Your task to perform on an android device: Open wifi settings Image 0: 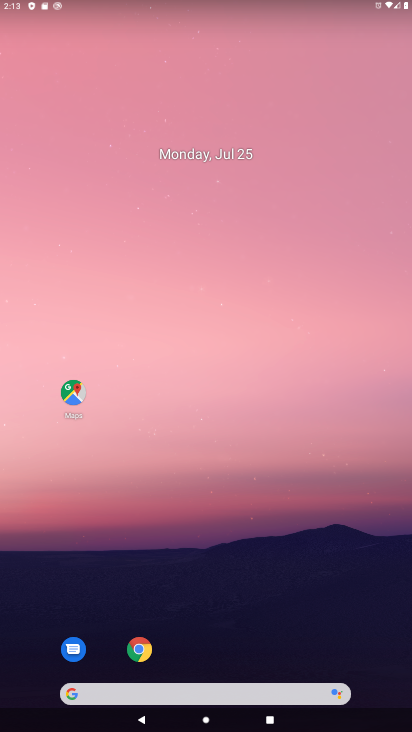
Step 0: drag from (373, 656) to (298, 141)
Your task to perform on an android device: Open wifi settings Image 1: 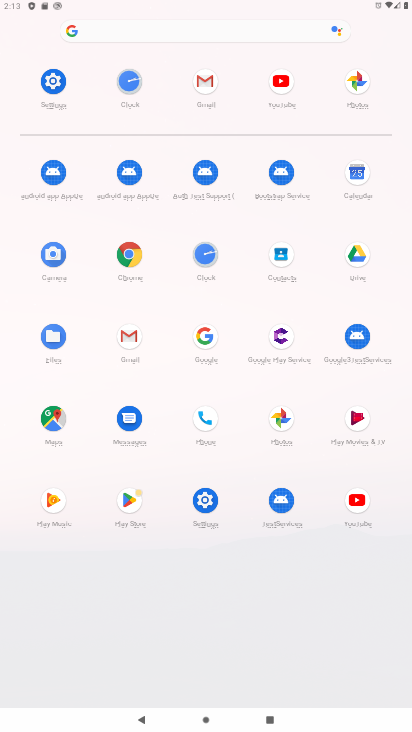
Step 1: click (206, 499)
Your task to perform on an android device: Open wifi settings Image 2: 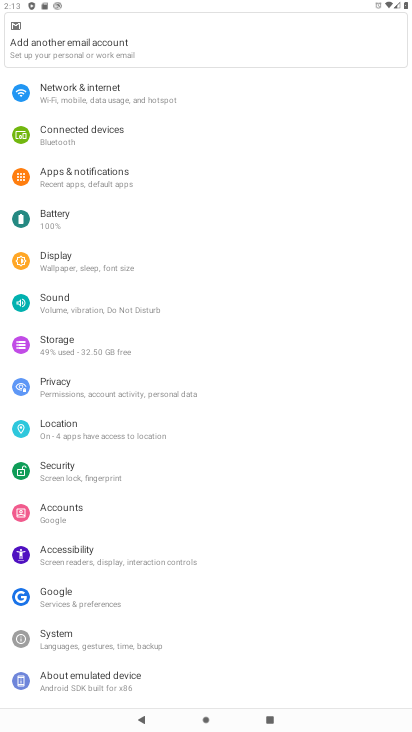
Step 2: click (65, 91)
Your task to perform on an android device: Open wifi settings Image 3: 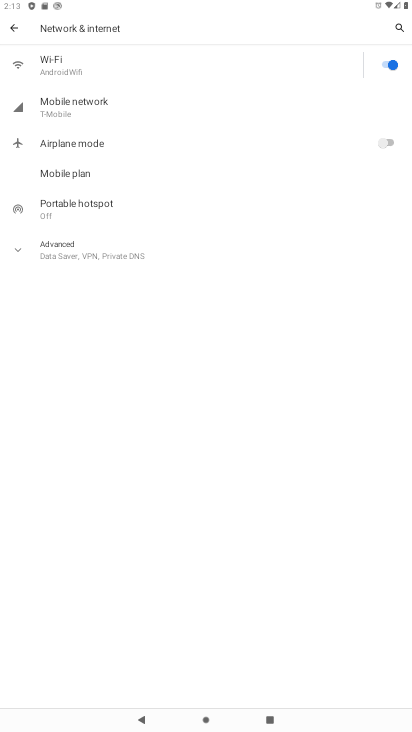
Step 3: click (48, 63)
Your task to perform on an android device: Open wifi settings Image 4: 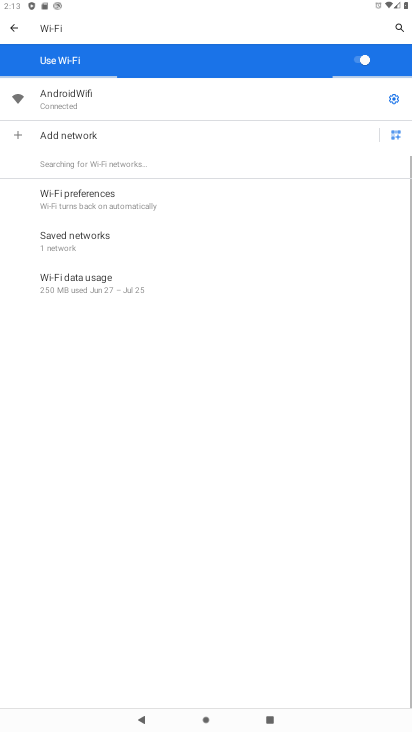
Step 4: task complete